Your task to perform on an android device: delete a single message in the gmail app Image 0: 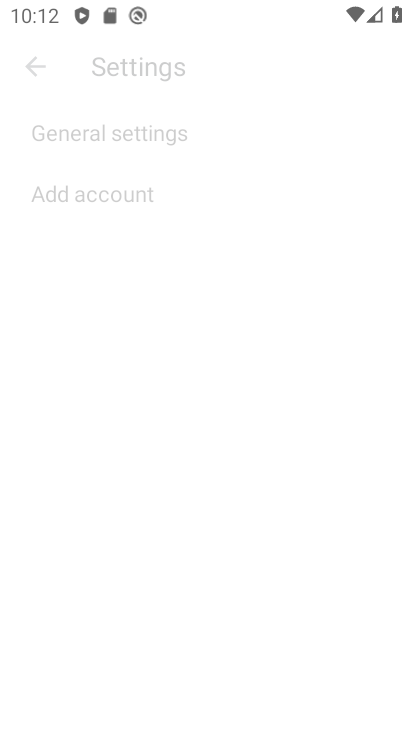
Step 0: press home button
Your task to perform on an android device: delete a single message in the gmail app Image 1: 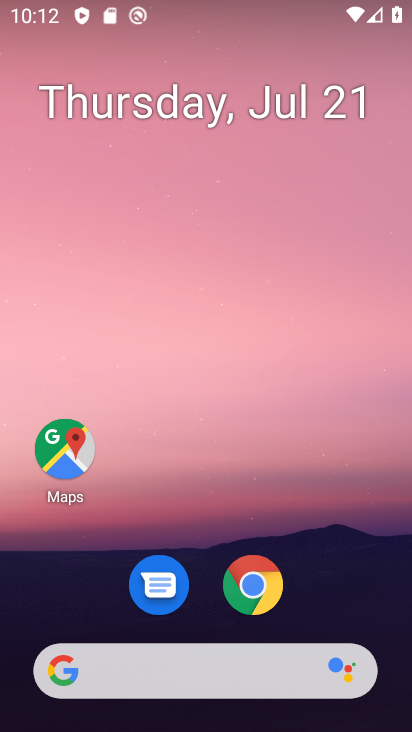
Step 1: drag from (288, 379) to (342, 109)
Your task to perform on an android device: delete a single message in the gmail app Image 2: 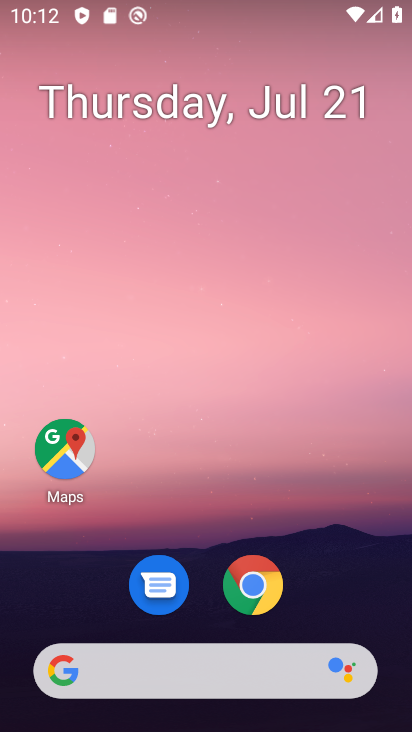
Step 2: drag from (155, 667) to (303, 52)
Your task to perform on an android device: delete a single message in the gmail app Image 3: 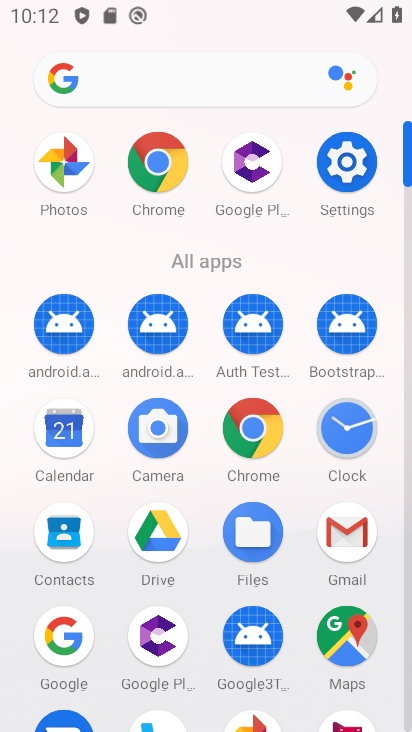
Step 3: click (361, 533)
Your task to perform on an android device: delete a single message in the gmail app Image 4: 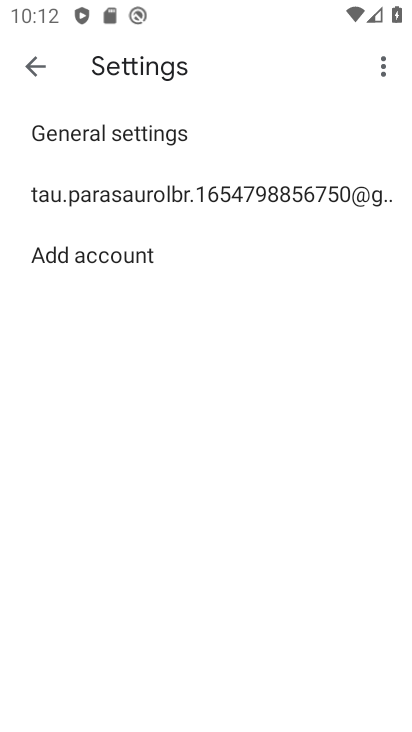
Step 4: click (29, 58)
Your task to perform on an android device: delete a single message in the gmail app Image 5: 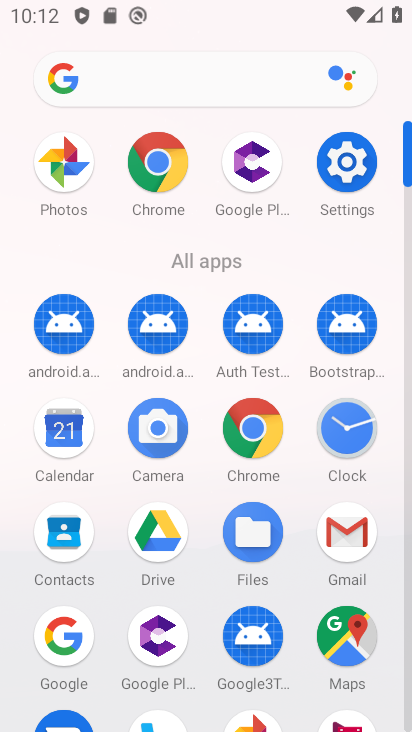
Step 5: click (354, 539)
Your task to perform on an android device: delete a single message in the gmail app Image 6: 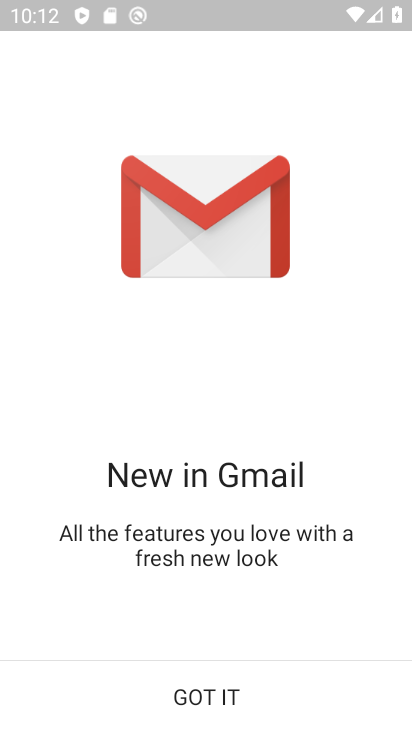
Step 6: click (202, 666)
Your task to perform on an android device: delete a single message in the gmail app Image 7: 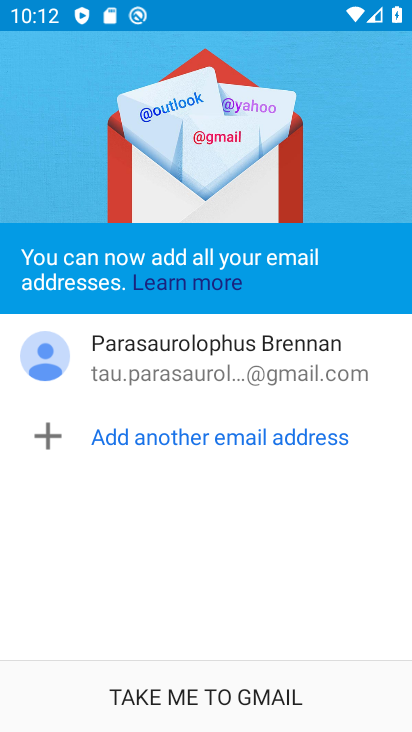
Step 7: click (197, 687)
Your task to perform on an android device: delete a single message in the gmail app Image 8: 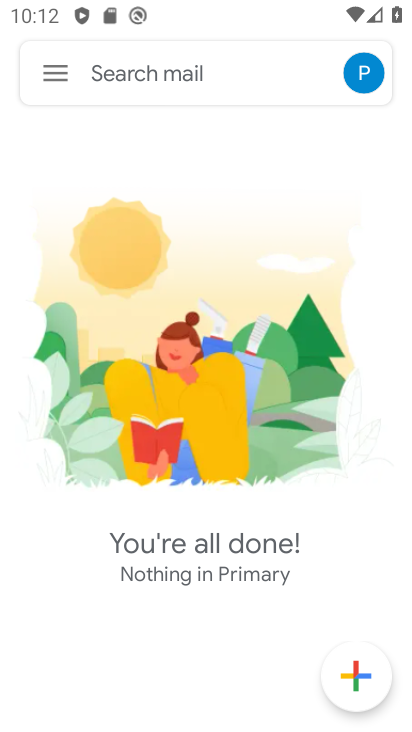
Step 8: task complete